Your task to perform on an android device: When is my next appointment? Image 0: 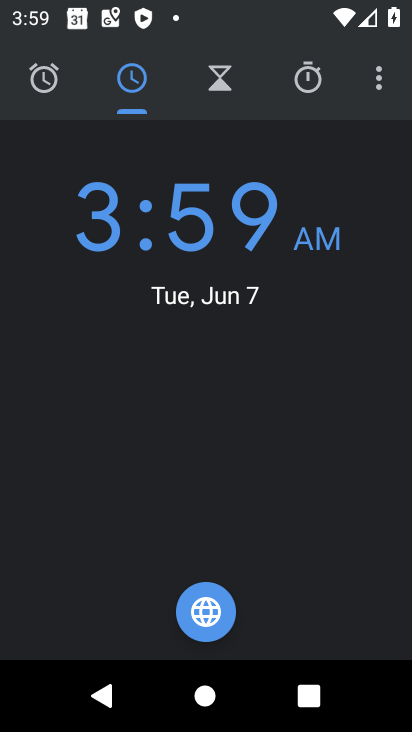
Step 0: press back button
Your task to perform on an android device: When is my next appointment? Image 1: 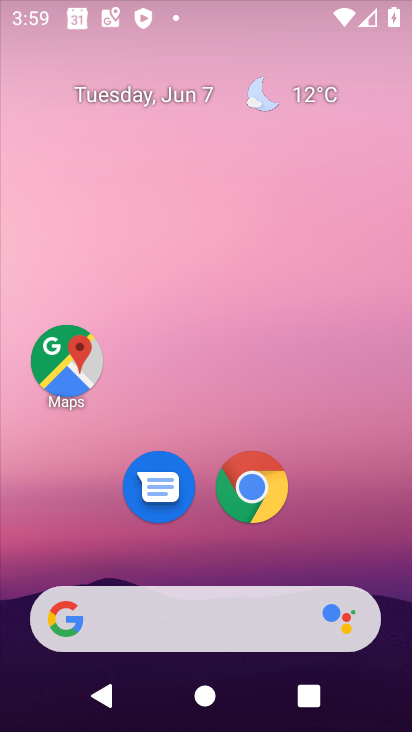
Step 1: drag from (199, 450) to (243, 1)
Your task to perform on an android device: When is my next appointment? Image 2: 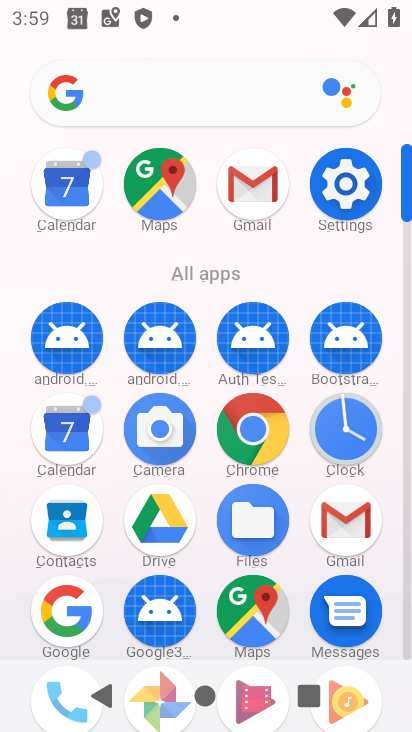
Step 2: click (66, 437)
Your task to perform on an android device: When is my next appointment? Image 3: 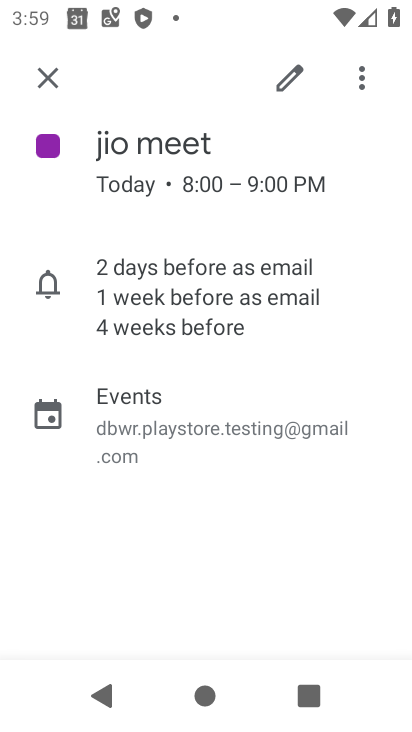
Step 3: click (51, 68)
Your task to perform on an android device: When is my next appointment? Image 4: 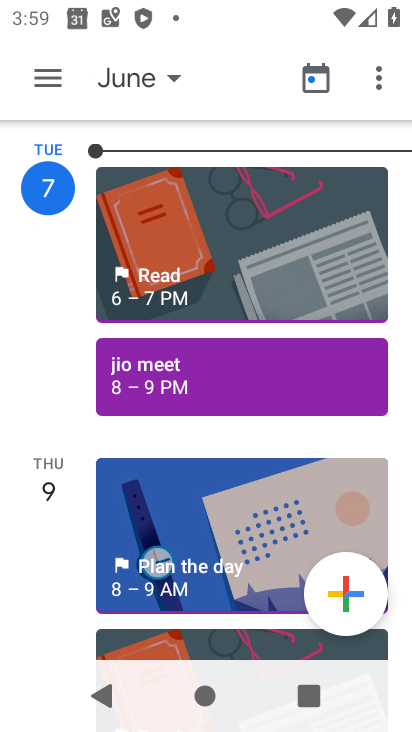
Step 4: task complete